Your task to perform on an android device: check battery use Image 0: 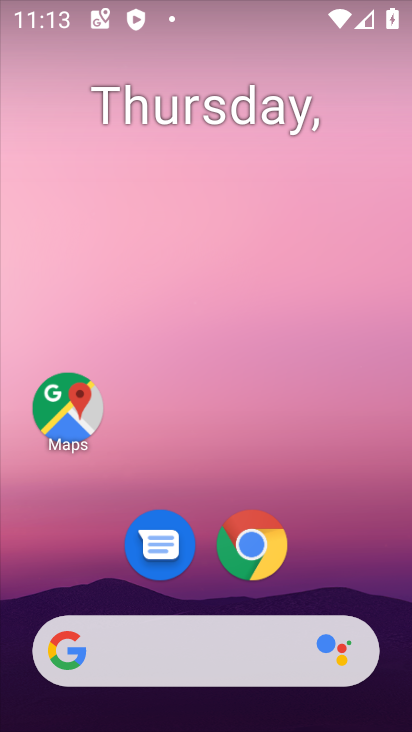
Step 0: drag from (295, 598) to (260, 132)
Your task to perform on an android device: check battery use Image 1: 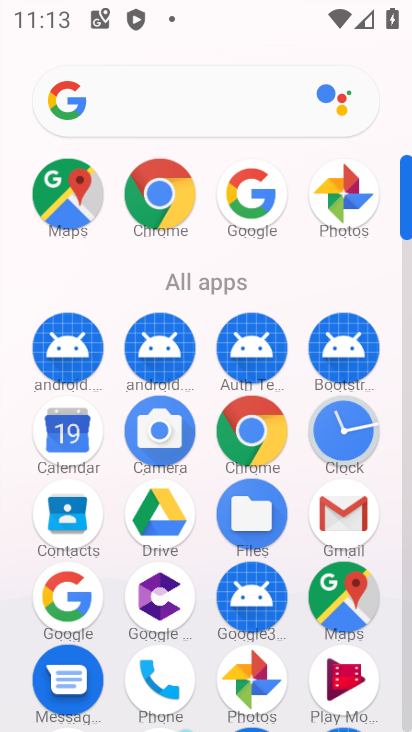
Step 1: drag from (134, 648) to (208, 261)
Your task to perform on an android device: check battery use Image 2: 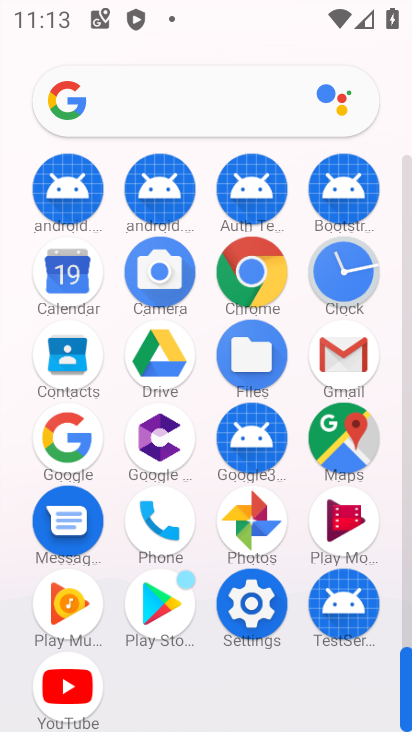
Step 2: click (250, 620)
Your task to perform on an android device: check battery use Image 3: 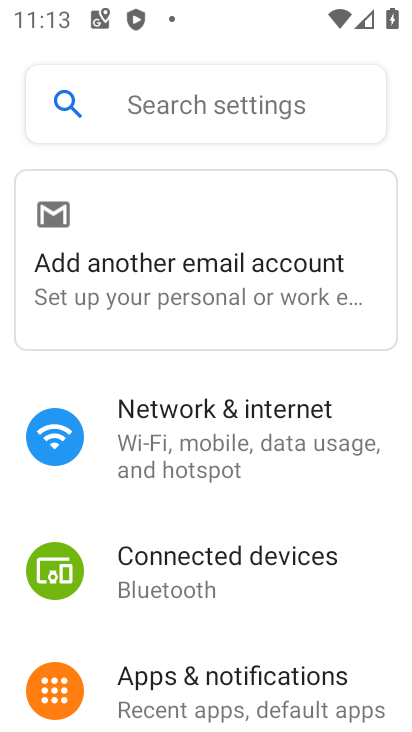
Step 3: drag from (204, 647) to (244, 305)
Your task to perform on an android device: check battery use Image 4: 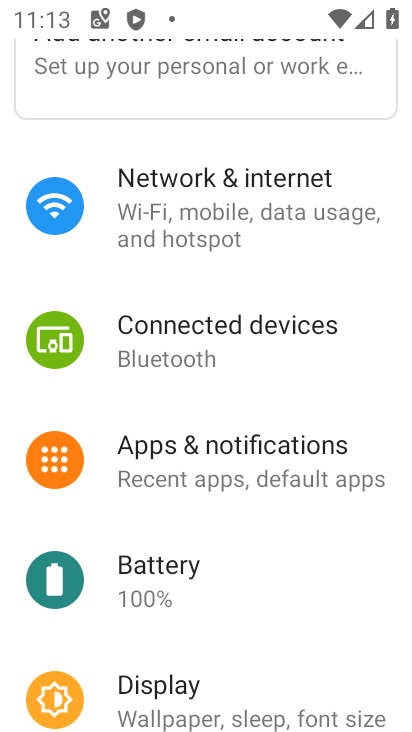
Step 4: click (184, 607)
Your task to perform on an android device: check battery use Image 5: 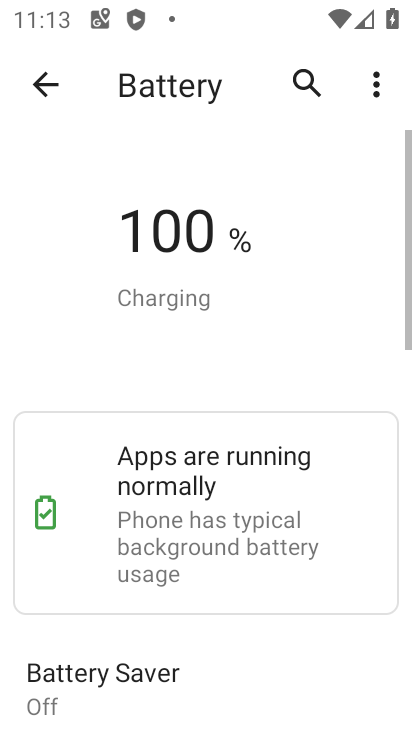
Step 5: task complete